Your task to perform on an android device: remove spam from my inbox in the gmail app Image 0: 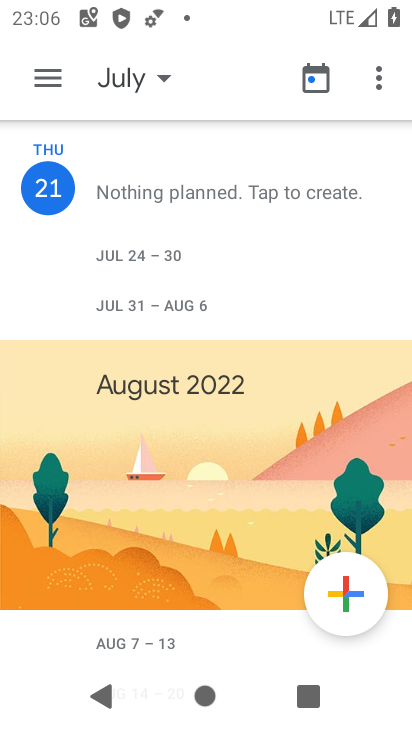
Step 0: press back button
Your task to perform on an android device: remove spam from my inbox in the gmail app Image 1: 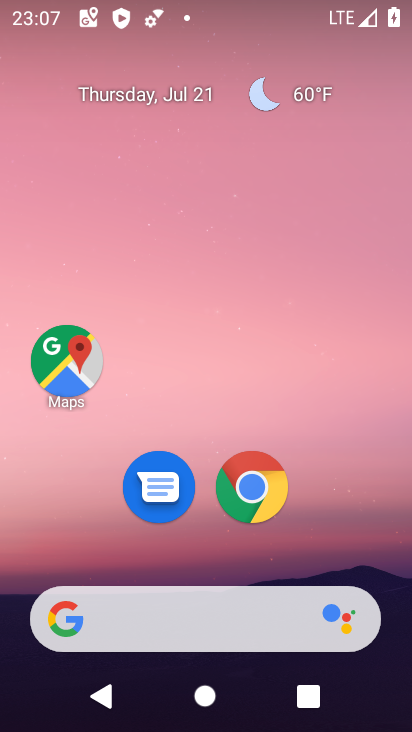
Step 1: drag from (152, 548) to (200, 11)
Your task to perform on an android device: remove spam from my inbox in the gmail app Image 2: 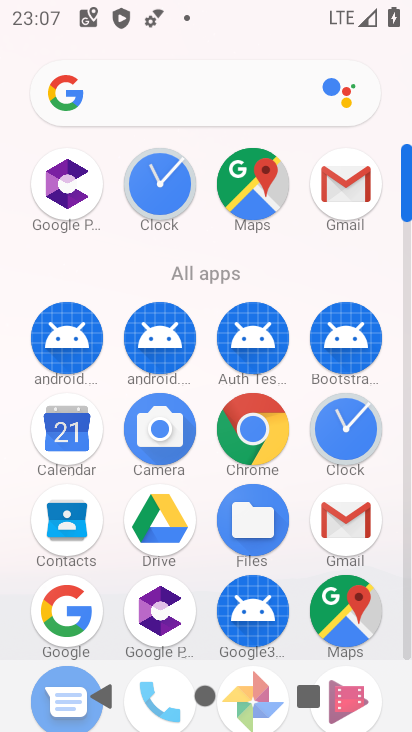
Step 2: click (332, 180)
Your task to perform on an android device: remove spam from my inbox in the gmail app Image 3: 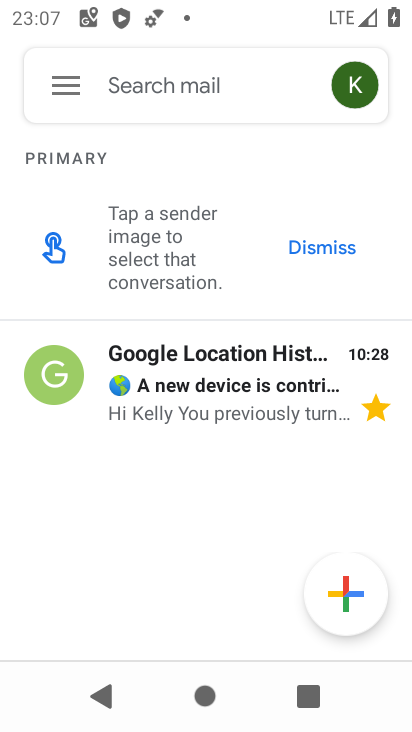
Step 3: click (67, 83)
Your task to perform on an android device: remove spam from my inbox in the gmail app Image 4: 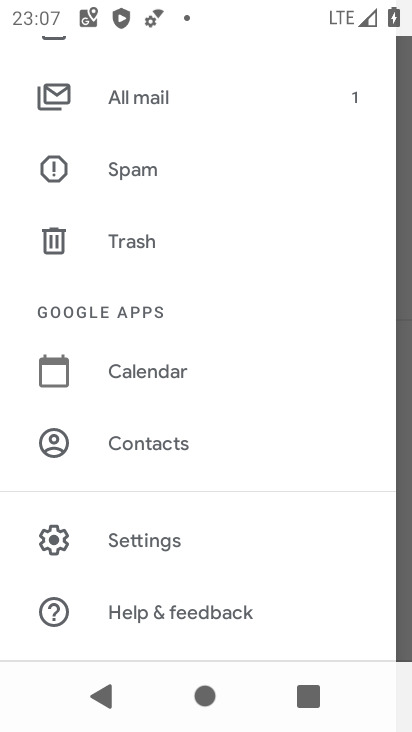
Step 4: click (149, 173)
Your task to perform on an android device: remove spam from my inbox in the gmail app Image 5: 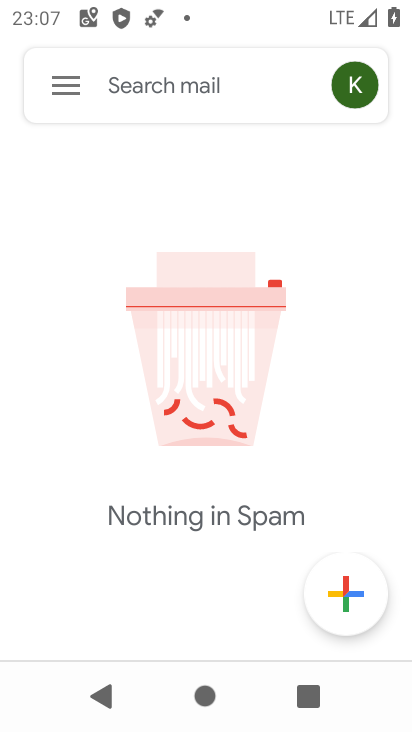
Step 5: task complete